Your task to perform on an android device: turn vacation reply on in the gmail app Image 0: 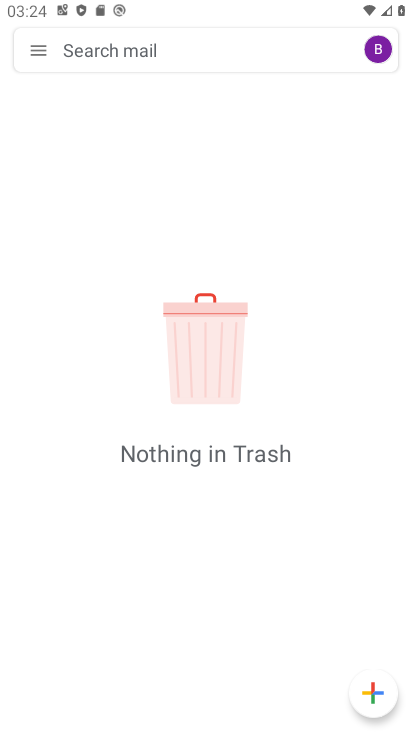
Step 0: click (24, 45)
Your task to perform on an android device: turn vacation reply on in the gmail app Image 1: 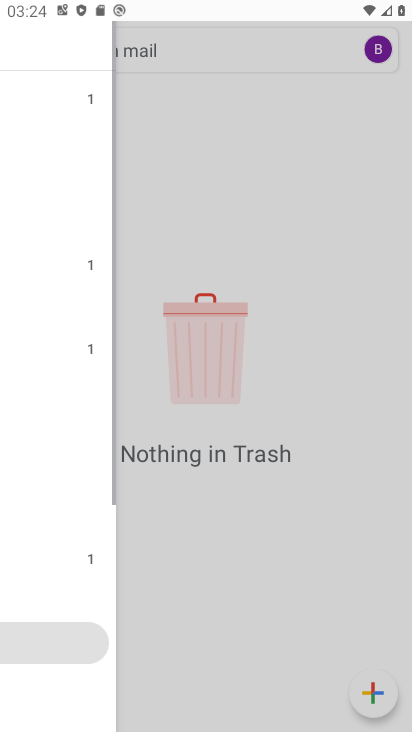
Step 1: click (30, 50)
Your task to perform on an android device: turn vacation reply on in the gmail app Image 2: 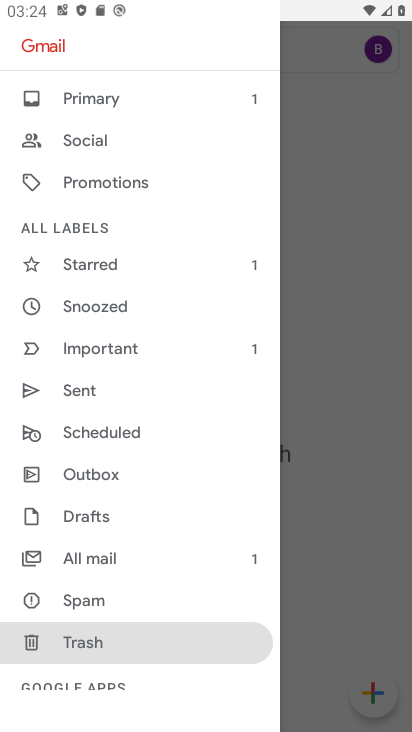
Step 2: drag from (105, 619) to (29, 189)
Your task to perform on an android device: turn vacation reply on in the gmail app Image 3: 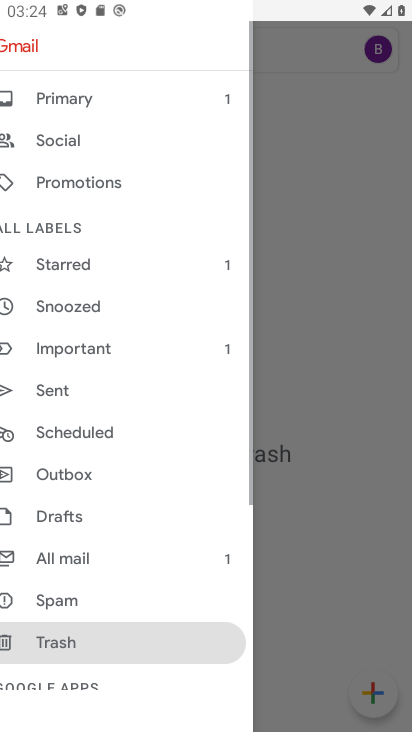
Step 3: drag from (138, 553) to (102, 317)
Your task to perform on an android device: turn vacation reply on in the gmail app Image 4: 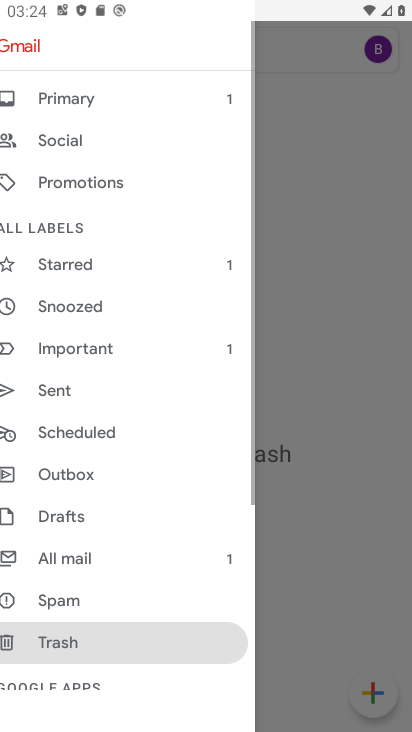
Step 4: drag from (100, 611) to (77, 286)
Your task to perform on an android device: turn vacation reply on in the gmail app Image 5: 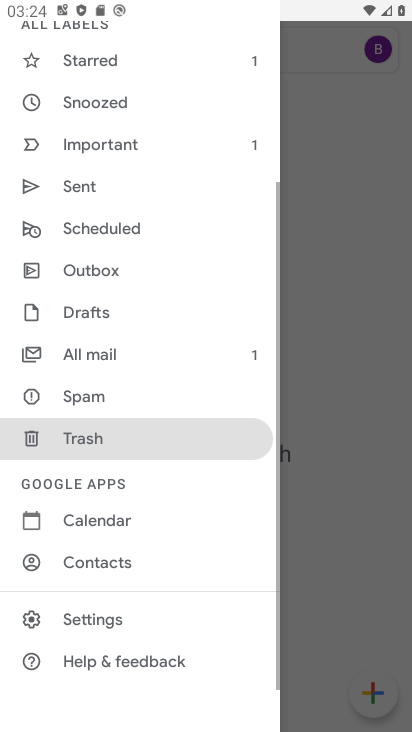
Step 5: drag from (111, 623) to (98, 302)
Your task to perform on an android device: turn vacation reply on in the gmail app Image 6: 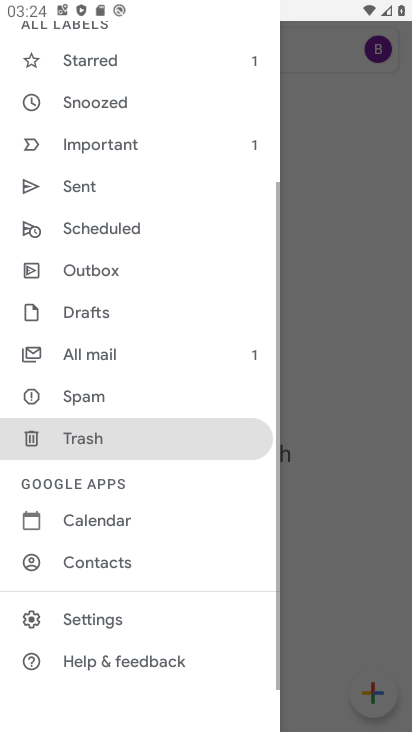
Step 6: drag from (95, 525) to (95, 270)
Your task to perform on an android device: turn vacation reply on in the gmail app Image 7: 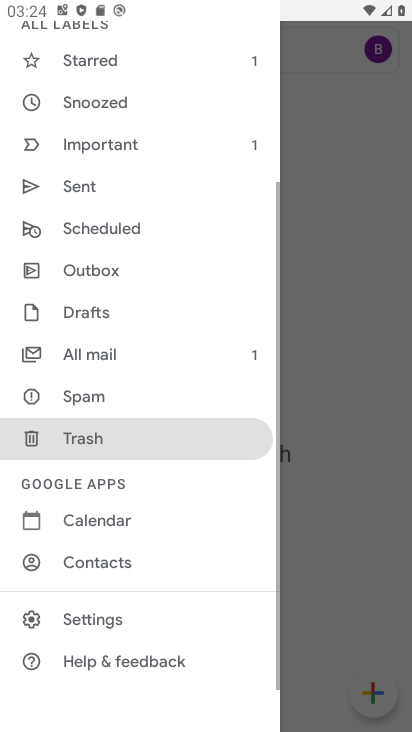
Step 7: click (96, 609)
Your task to perform on an android device: turn vacation reply on in the gmail app Image 8: 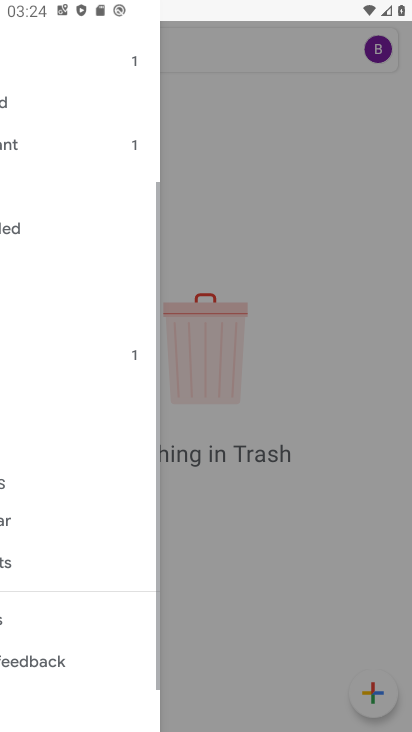
Step 8: click (95, 610)
Your task to perform on an android device: turn vacation reply on in the gmail app Image 9: 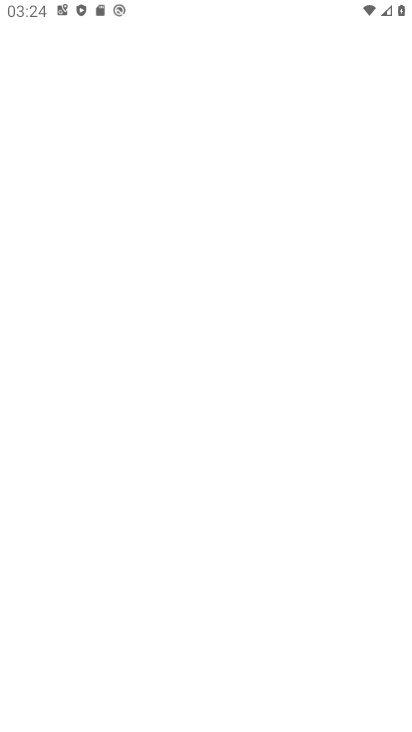
Step 9: click (99, 613)
Your task to perform on an android device: turn vacation reply on in the gmail app Image 10: 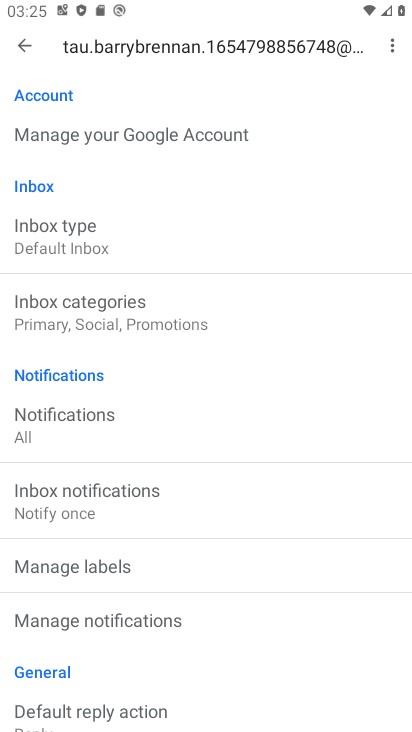
Step 10: drag from (78, 592) to (44, 223)
Your task to perform on an android device: turn vacation reply on in the gmail app Image 11: 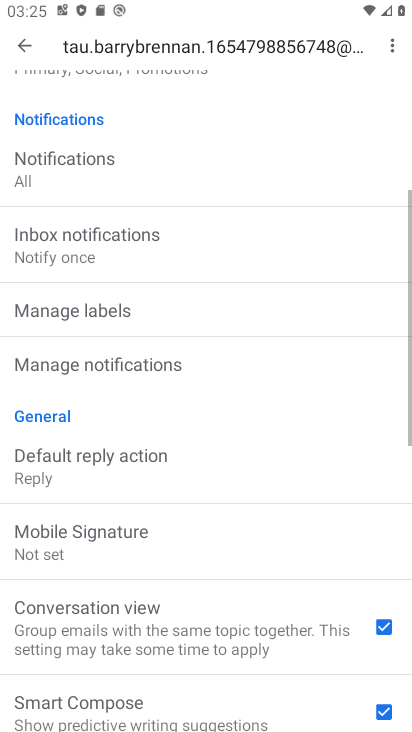
Step 11: drag from (72, 412) to (79, 50)
Your task to perform on an android device: turn vacation reply on in the gmail app Image 12: 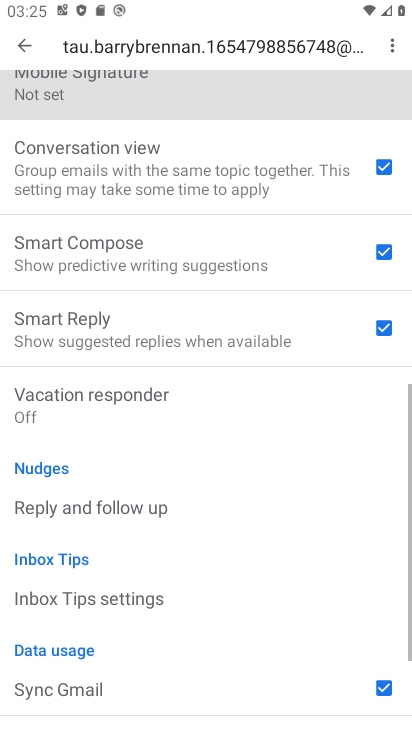
Step 12: drag from (120, 399) to (125, 169)
Your task to perform on an android device: turn vacation reply on in the gmail app Image 13: 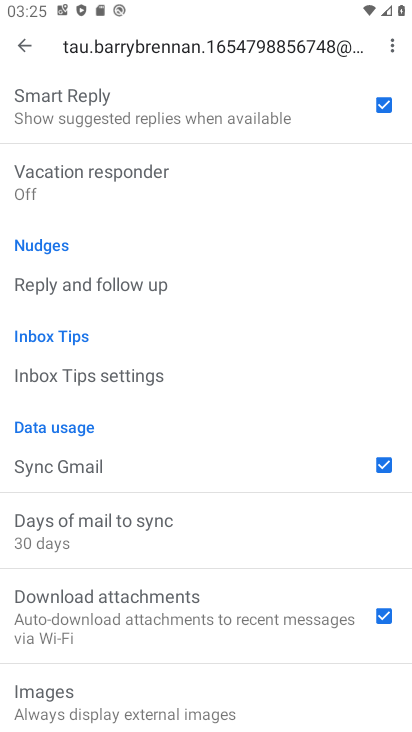
Step 13: click (115, 169)
Your task to perform on an android device: turn vacation reply on in the gmail app Image 14: 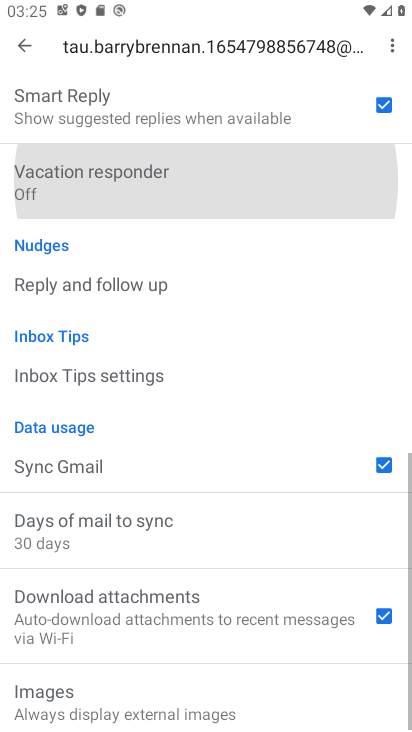
Step 14: click (115, 169)
Your task to perform on an android device: turn vacation reply on in the gmail app Image 15: 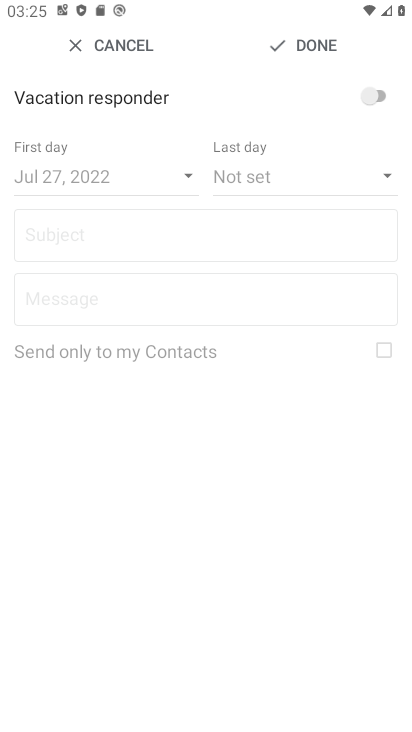
Step 15: click (358, 89)
Your task to perform on an android device: turn vacation reply on in the gmail app Image 16: 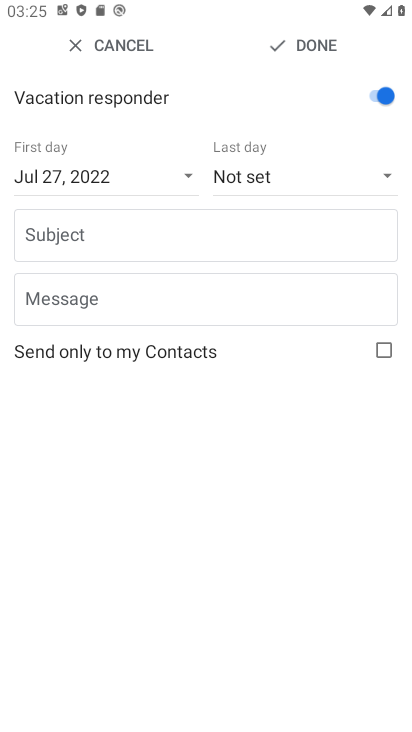
Step 16: press back button
Your task to perform on an android device: turn vacation reply on in the gmail app Image 17: 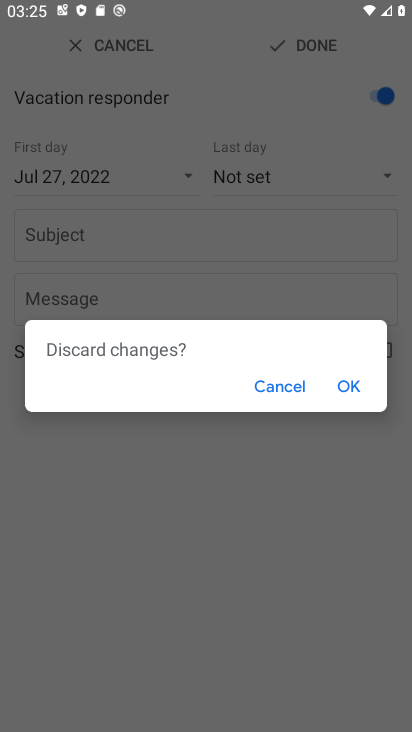
Step 17: click (288, 390)
Your task to perform on an android device: turn vacation reply on in the gmail app Image 18: 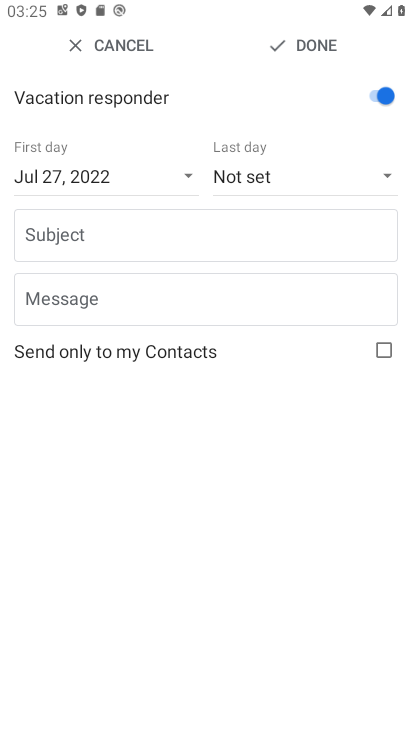
Step 18: press back button
Your task to perform on an android device: turn vacation reply on in the gmail app Image 19: 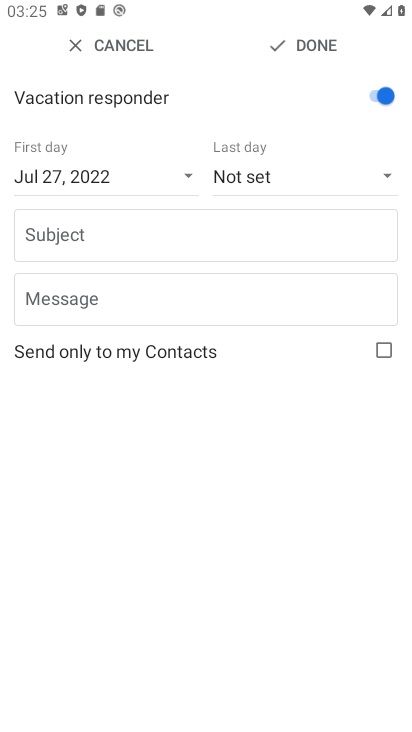
Step 19: press back button
Your task to perform on an android device: turn vacation reply on in the gmail app Image 20: 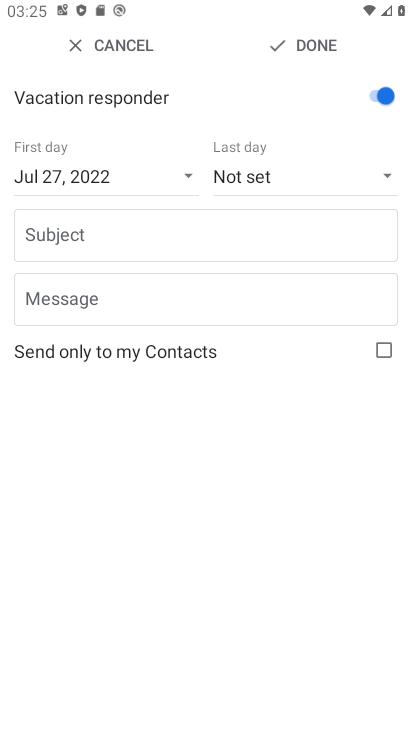
Step 20: press home button
Your task to perform on an android device: turn vacation reply on in the gmail app Image 21: 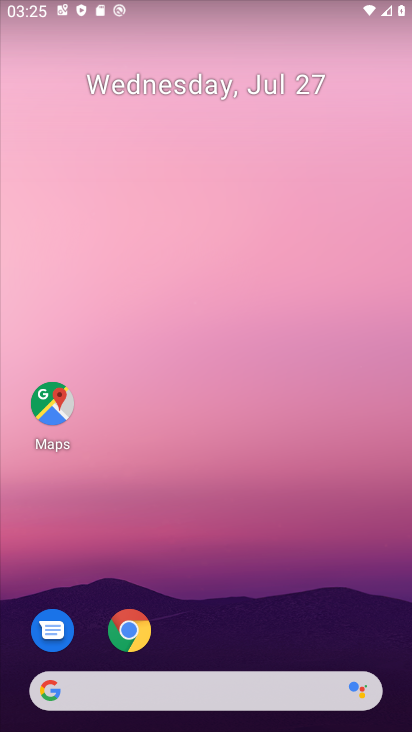
Step 21: drag from (205, 552) to (157, 208)
Your task to perform on an android device: turn vacation reply on in the gmail app Image 22: 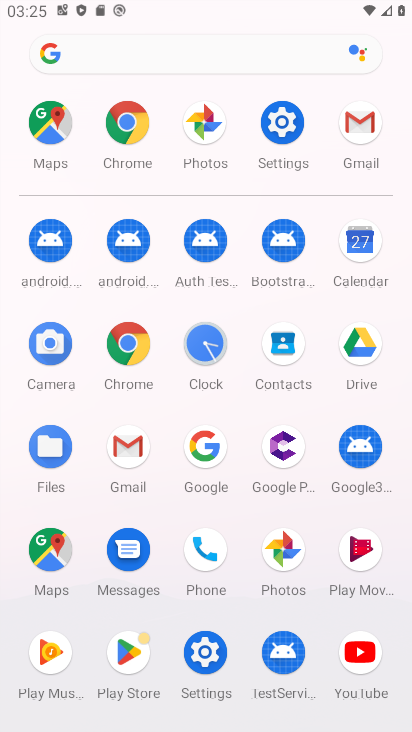
Step 22: click (377, 118)
Your task to perform on an android device: turn vacation reply on in the gmail app Image 23: 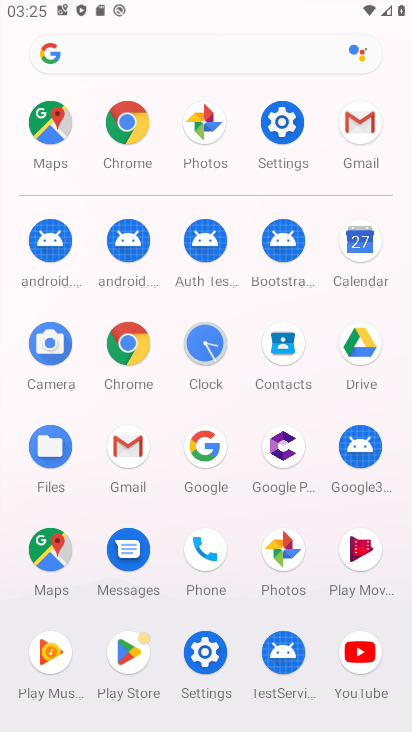
Step 23: click (374, 118)
Your task to perform on an android device: turn vacation reply on in the gmail app Image 24: 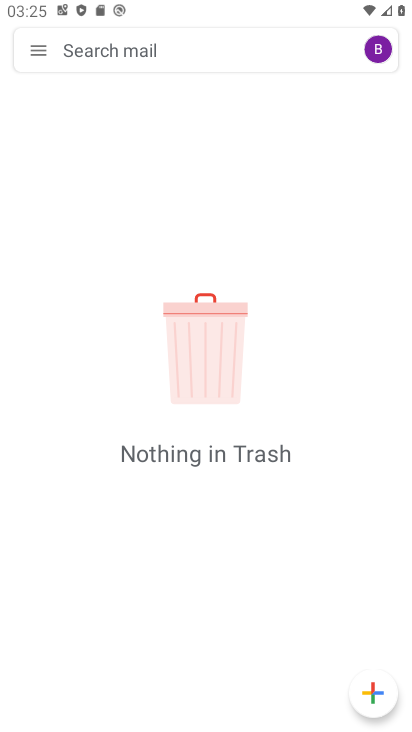
Step 24: click (44, 45)
Your task to perform on an android device: turn vacation reply on in the gmail app Image 25: 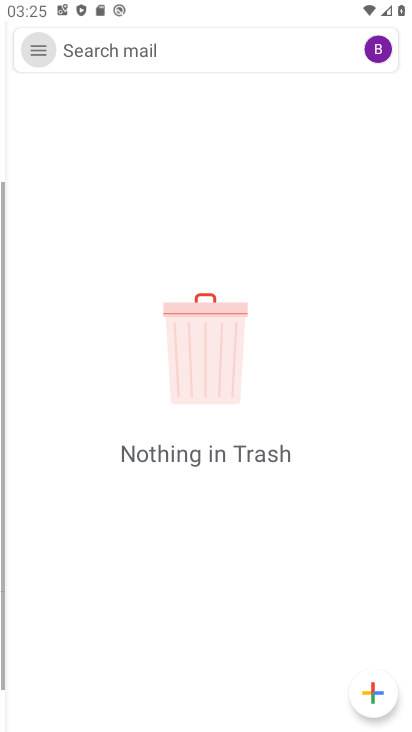
Step 25: click (43, 44)
Your task to perform on an android device: turn vacation reply on in the gmail app Image 26: 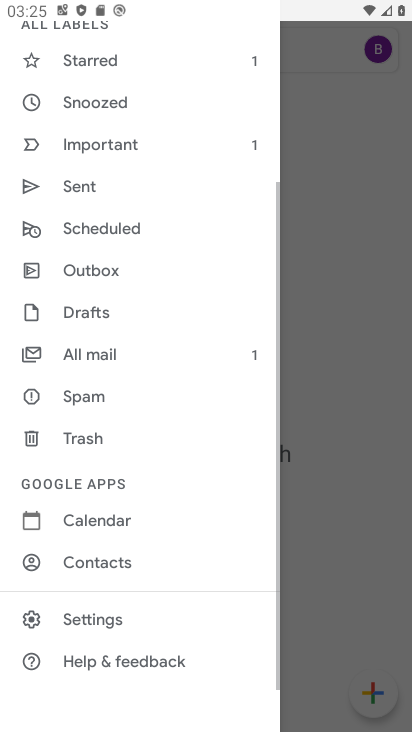
Step 26: click (105, 612)
Your task to perform on an android device: turn vacation reply on in the gmail app Image 27: 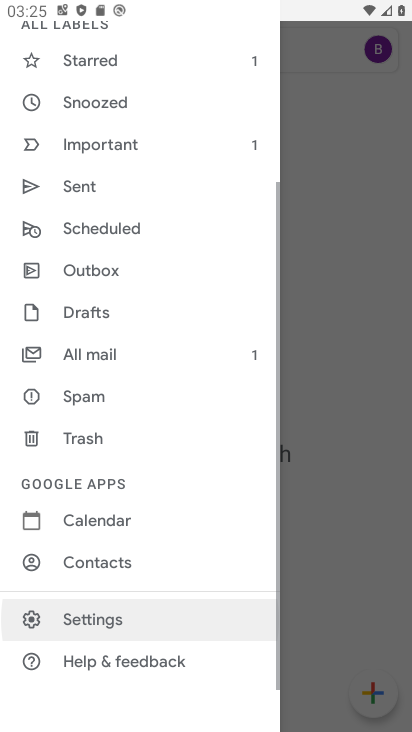
Step 27: click (105, 615)
Your task to perform on an android device: turn vacation reply on in the gmail app Image 28: 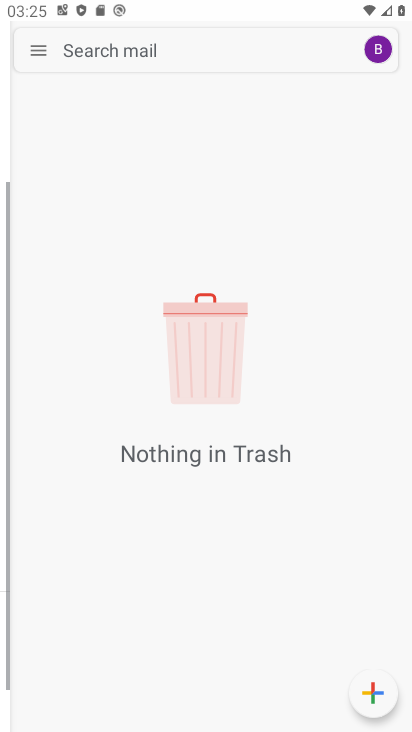
Step 28: click (105, 615)
Your task to perform on an android device: turn vacation reply on in the gmail app Image 29: 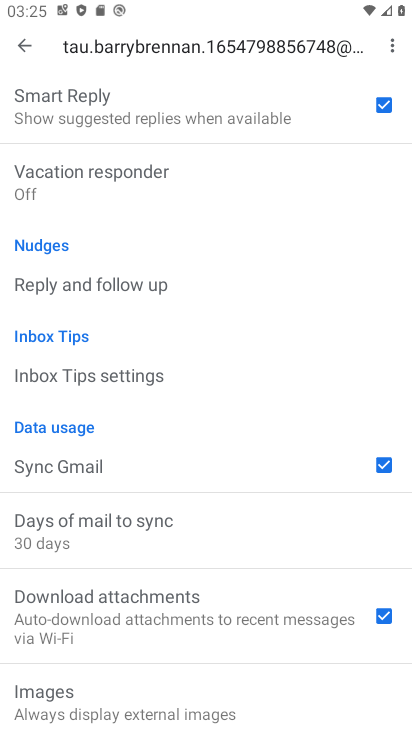
Step 29: drag from (47, 439) to (51, 102)
Your task to perform on an android device: turn vacation reply on in the gmail app Image 30: 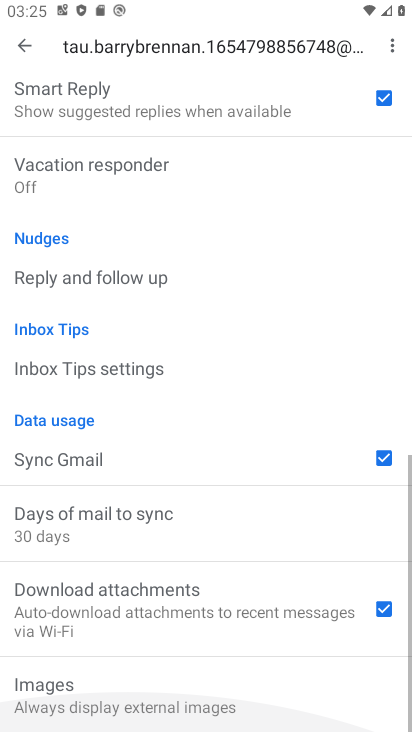
Step 30: drag from (89, 425) to (118, 186)
Your task to perform on an android device: turn vacation reply on in the gmail app Image 31: 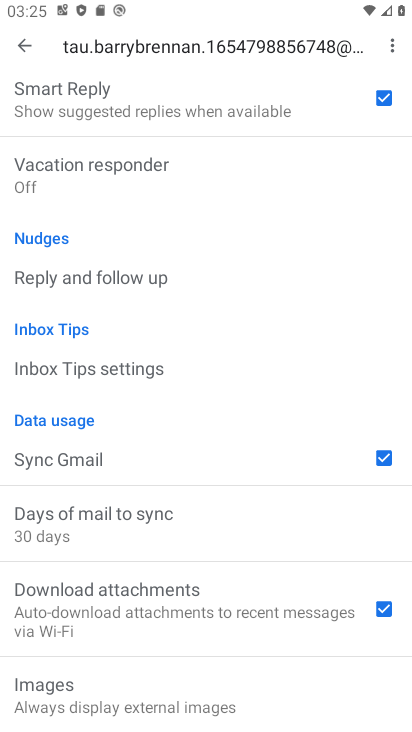
Step 31: drag from (119, 178) to (77, 472)
Your task to perform on an android device: turn vacation reply on in the gmail app Image 32: 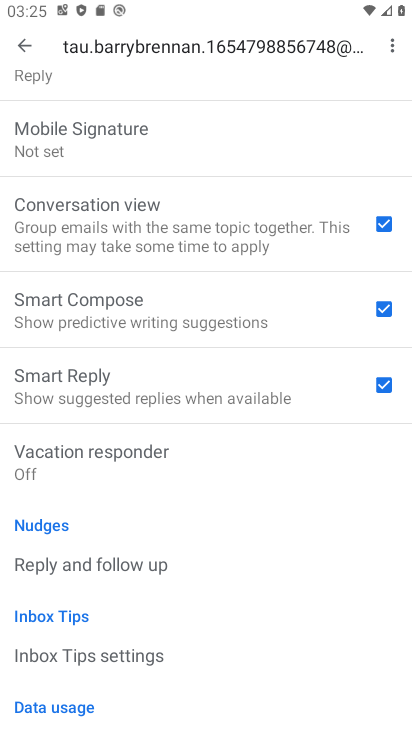
Step 32: click (106, 451)
Your task to perform on an android device: turn vacation reply on in the gmail app Image 33: 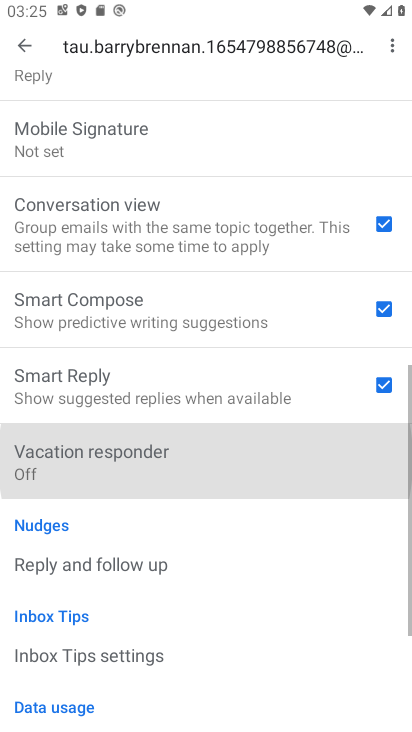
Step 33: click (106, 451)
Your task to perform on an android device: turn vacation reply on in the gmail app Image 34: 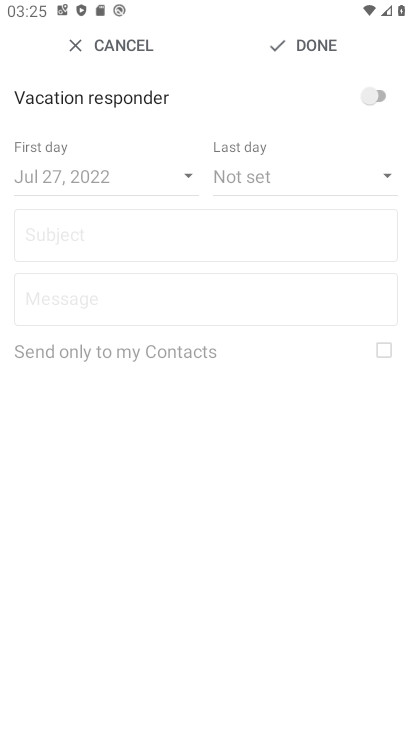
Step 34: click (368, 100)
Your task to perform on an android device: turn vacation reply on in the gmail app Image 35: 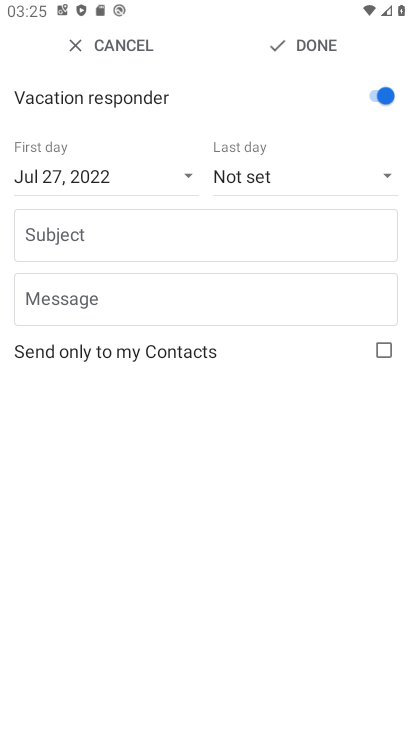
Step 35: task complete